Your task to perform on an android device: open app "Pandora - Music & Podcasts" Image 0: 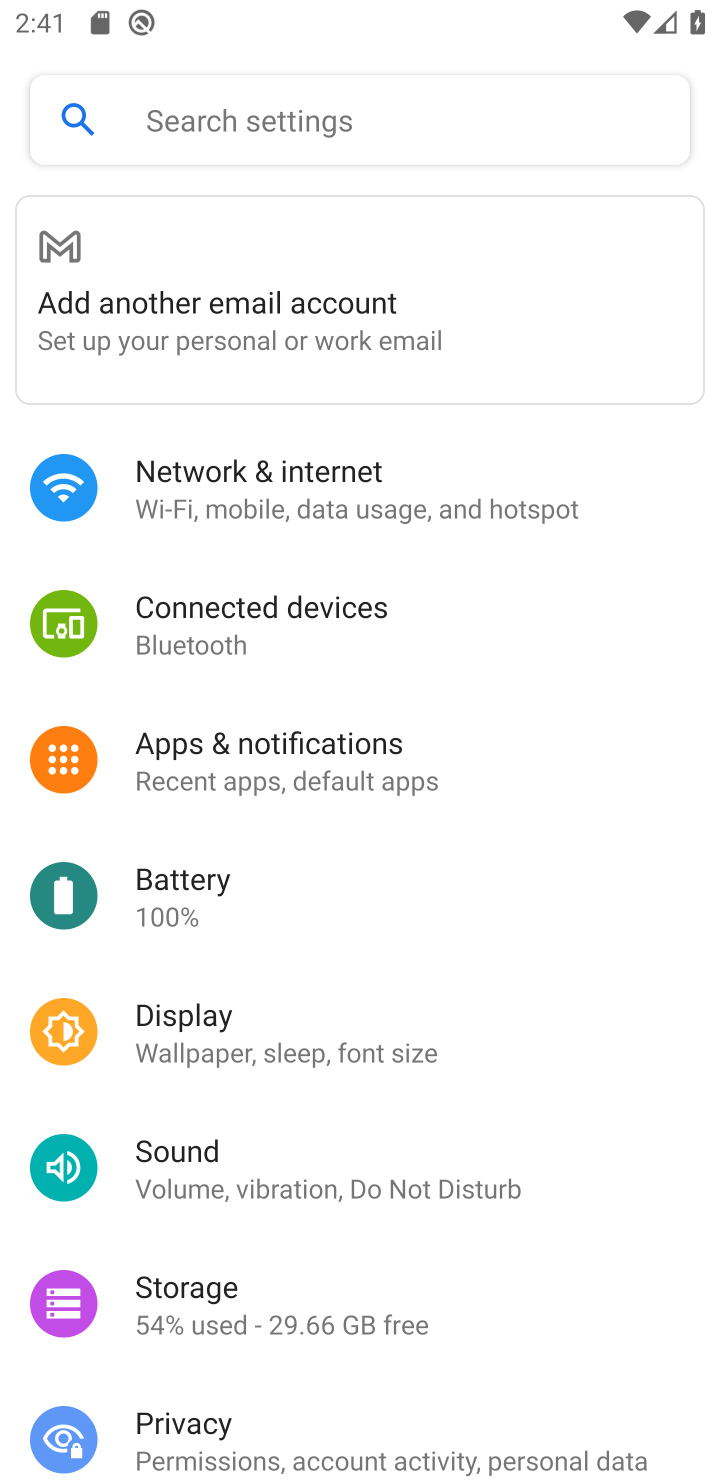
Step 0: press home button
Your task to perform on an android device: open app "Pandora - Music & Podcasts" Image 1: 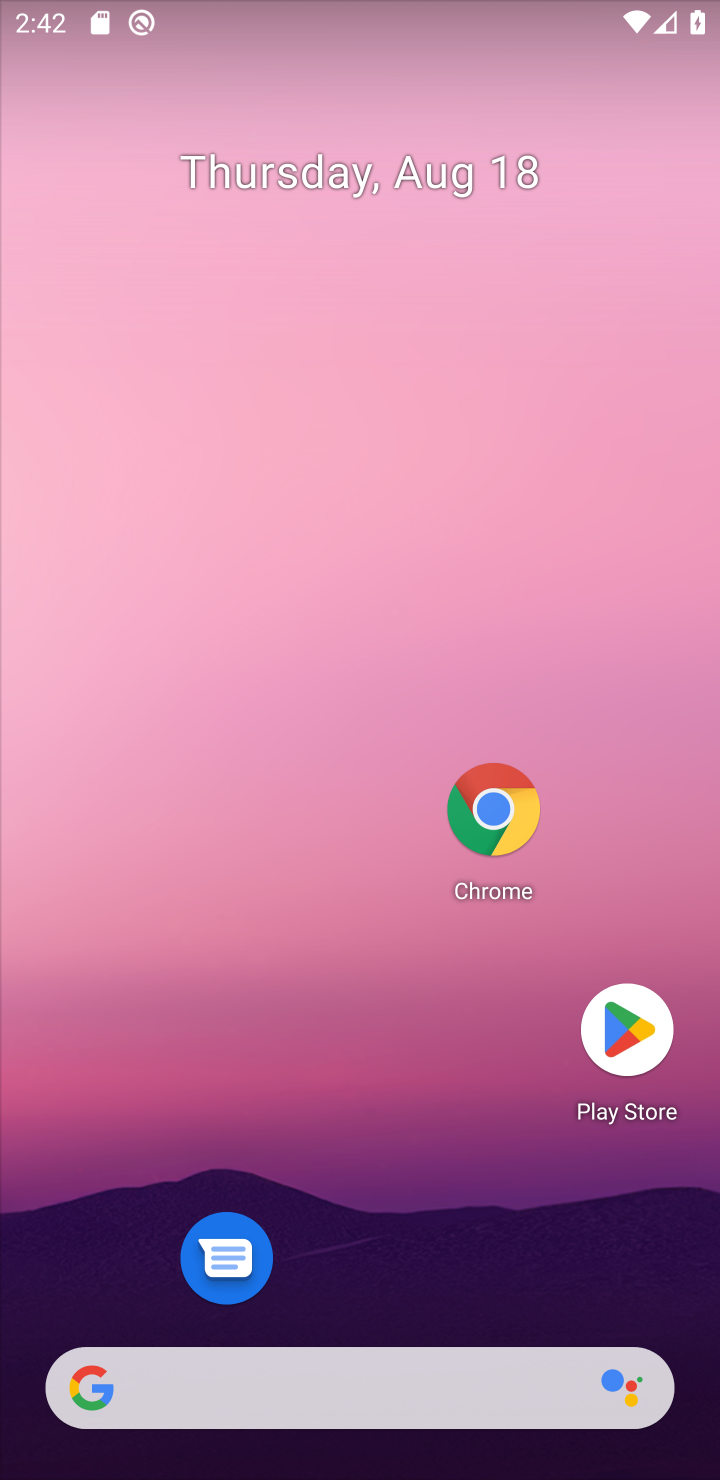
Step 1: click (634, 1048)
Your task to perform on an android device: open app "Pandora - Music & Podcasts" Image 2: 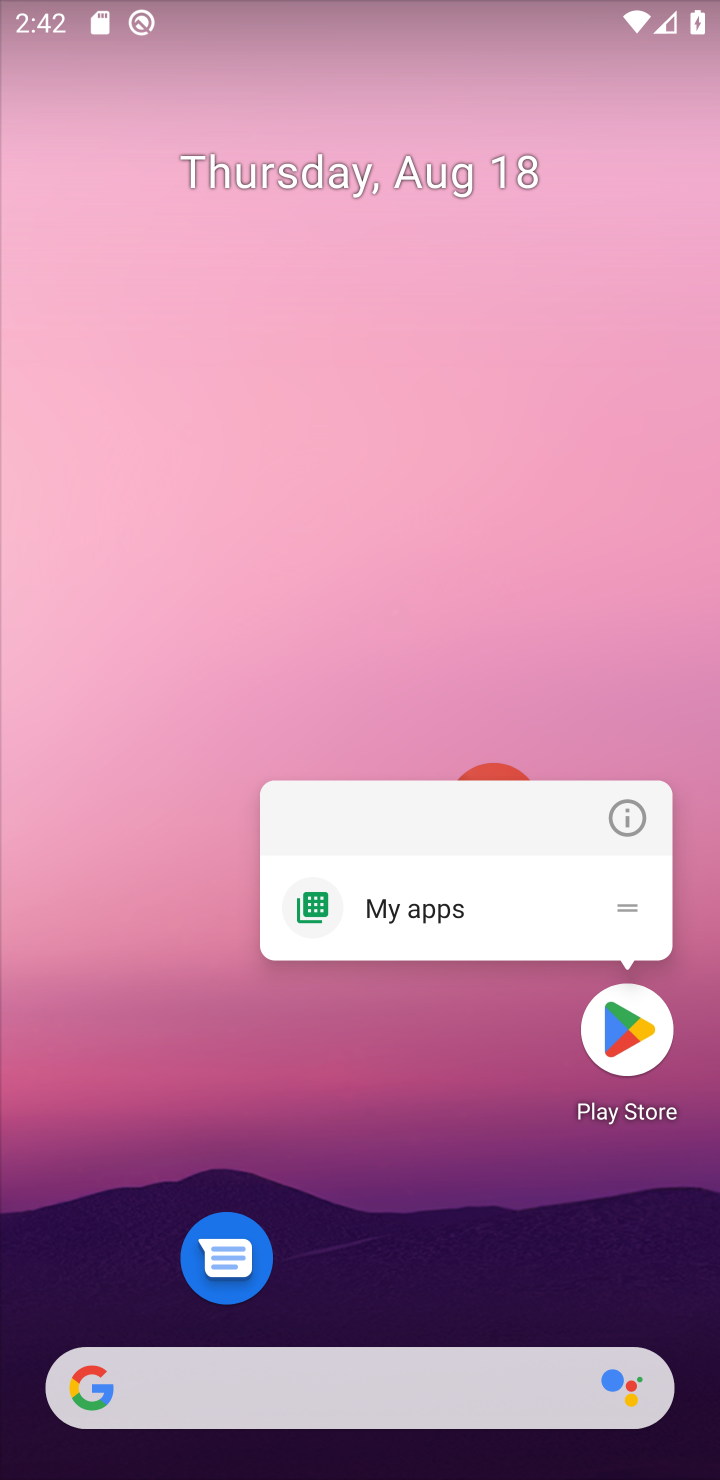
Step 2: click (77, 920)
Your task to perform on an android device: open app "Pandora - Music & Podcasts" Image 3: 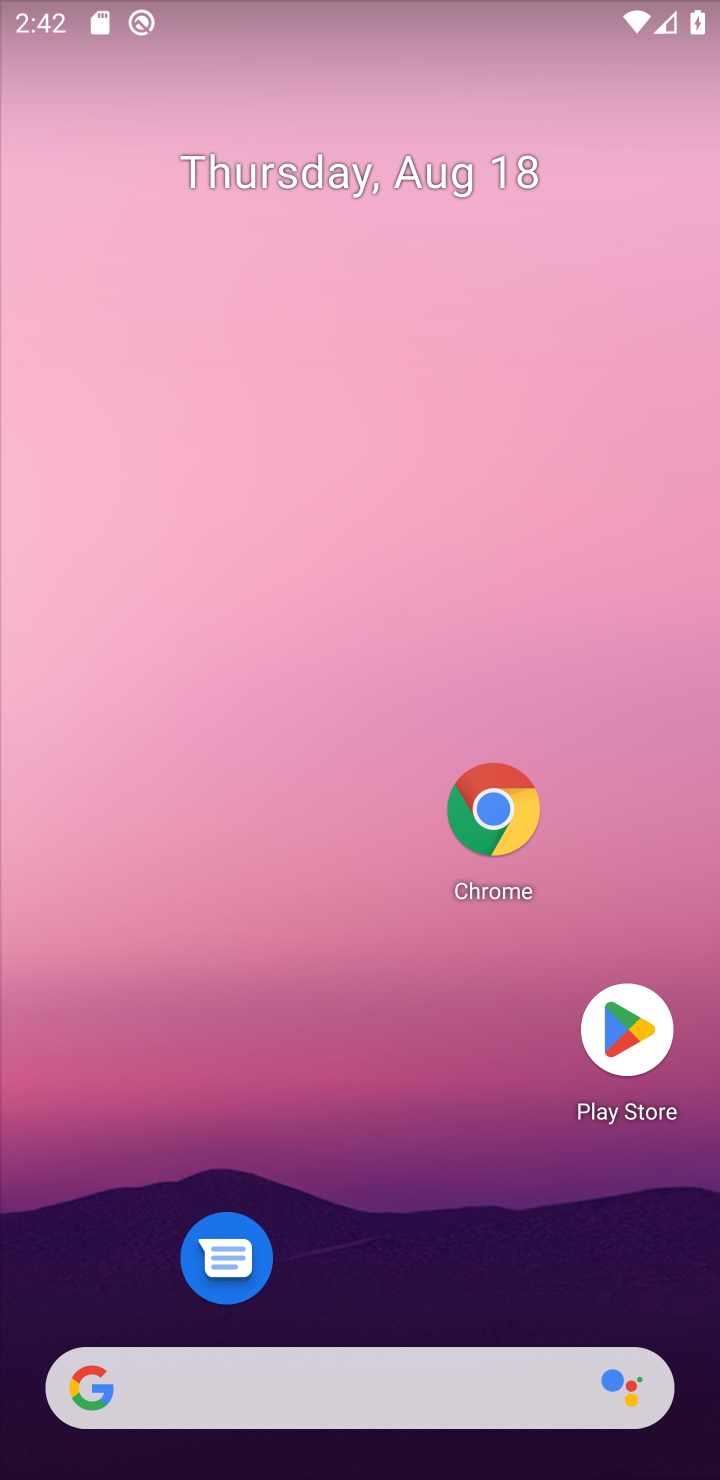
Step 3: click (596, 1016)
Your task to perform on an android device: open app "Pandora - Music & Podcasts" Image 4: 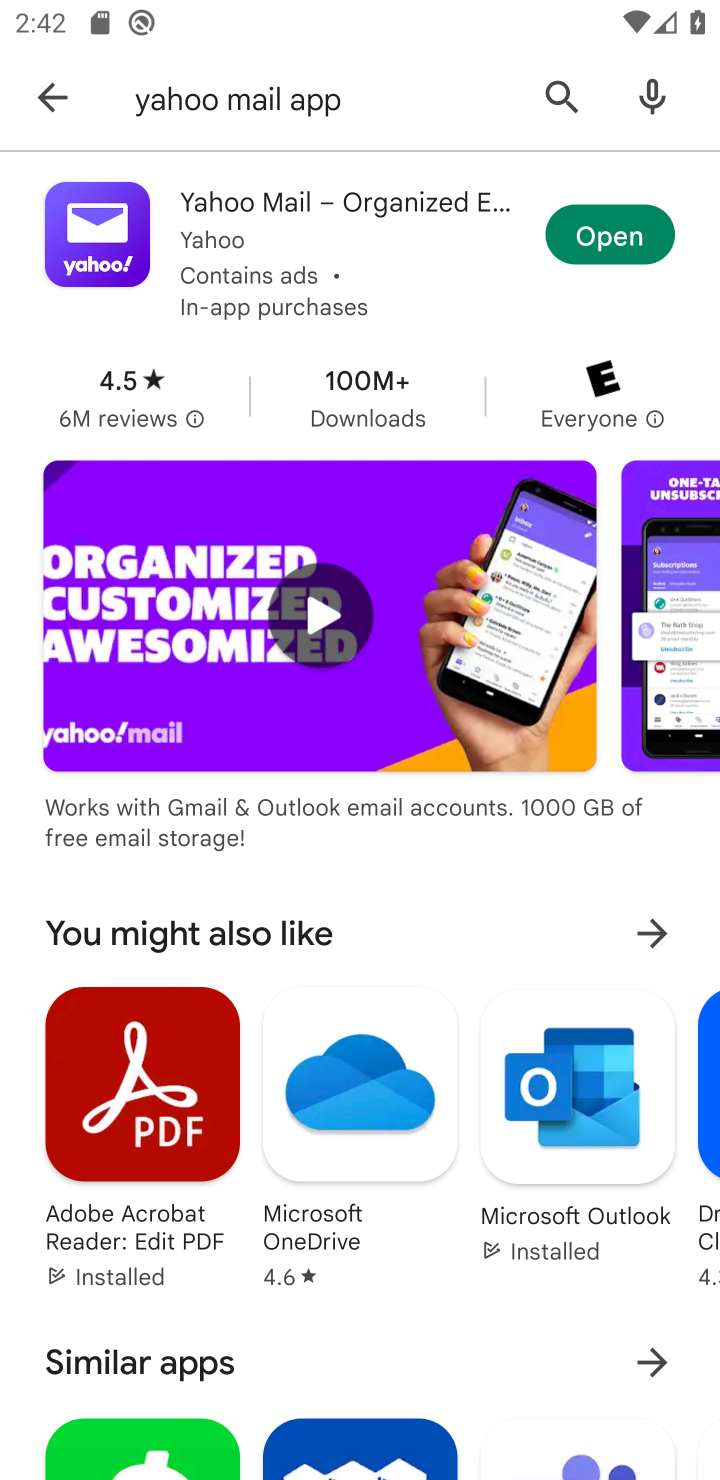
Step 4: click (565, 94)
Your task to perform on an android device: open app "Pandora - Music & Podcasts" Image 5: 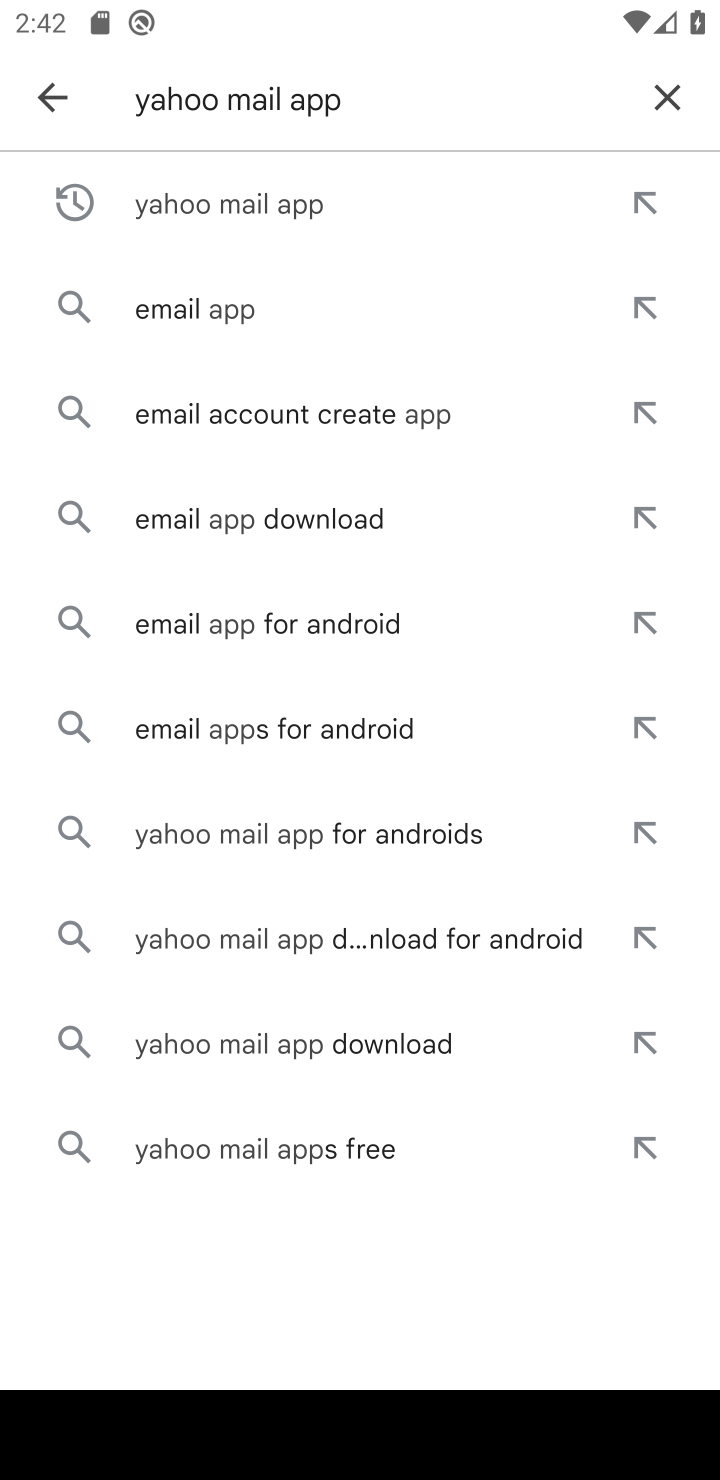
Step 5: click (667, 93)
Your task to perform on an android device: open app "Pandora - Music & Podcasts" Image 6: 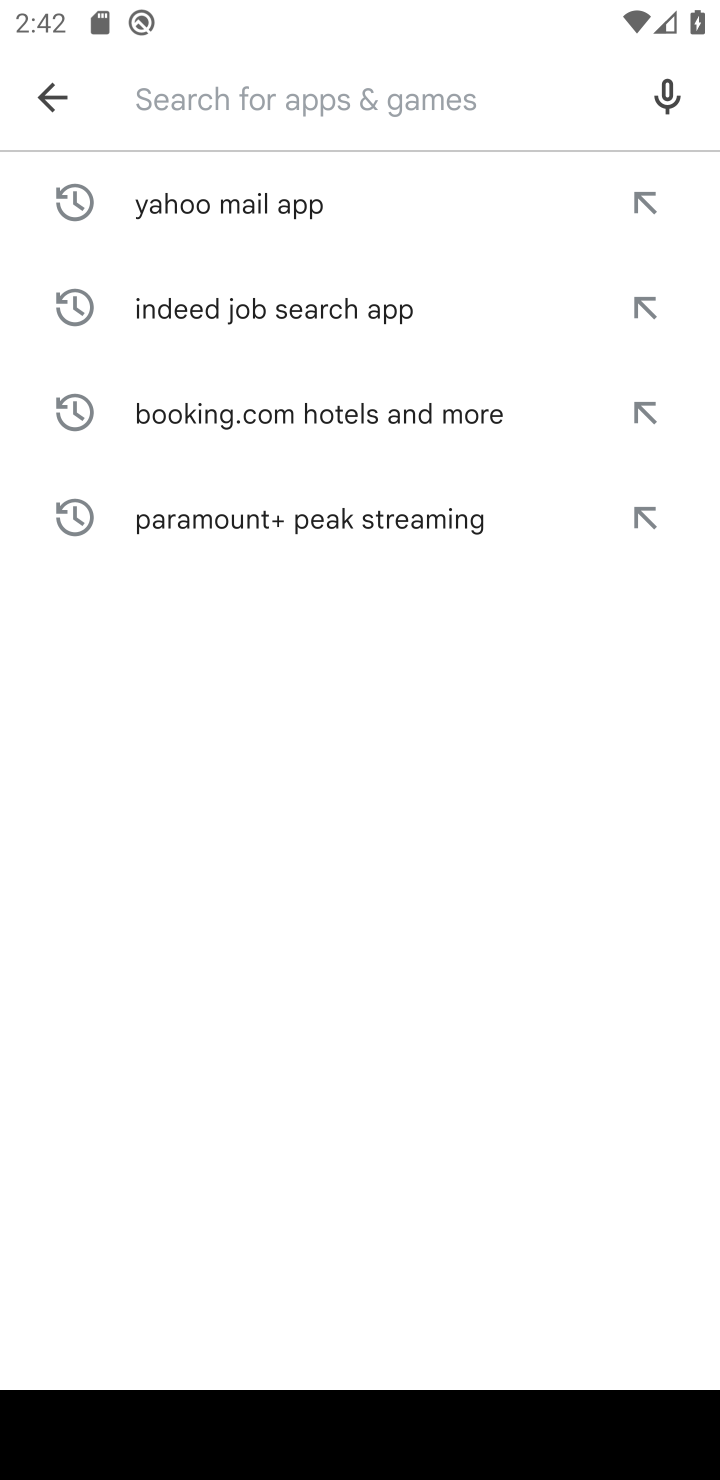
Step 6: click (329, 81)
Your task to perform on an android device: open app "Pandora - Music & Podcasts" Image 7: 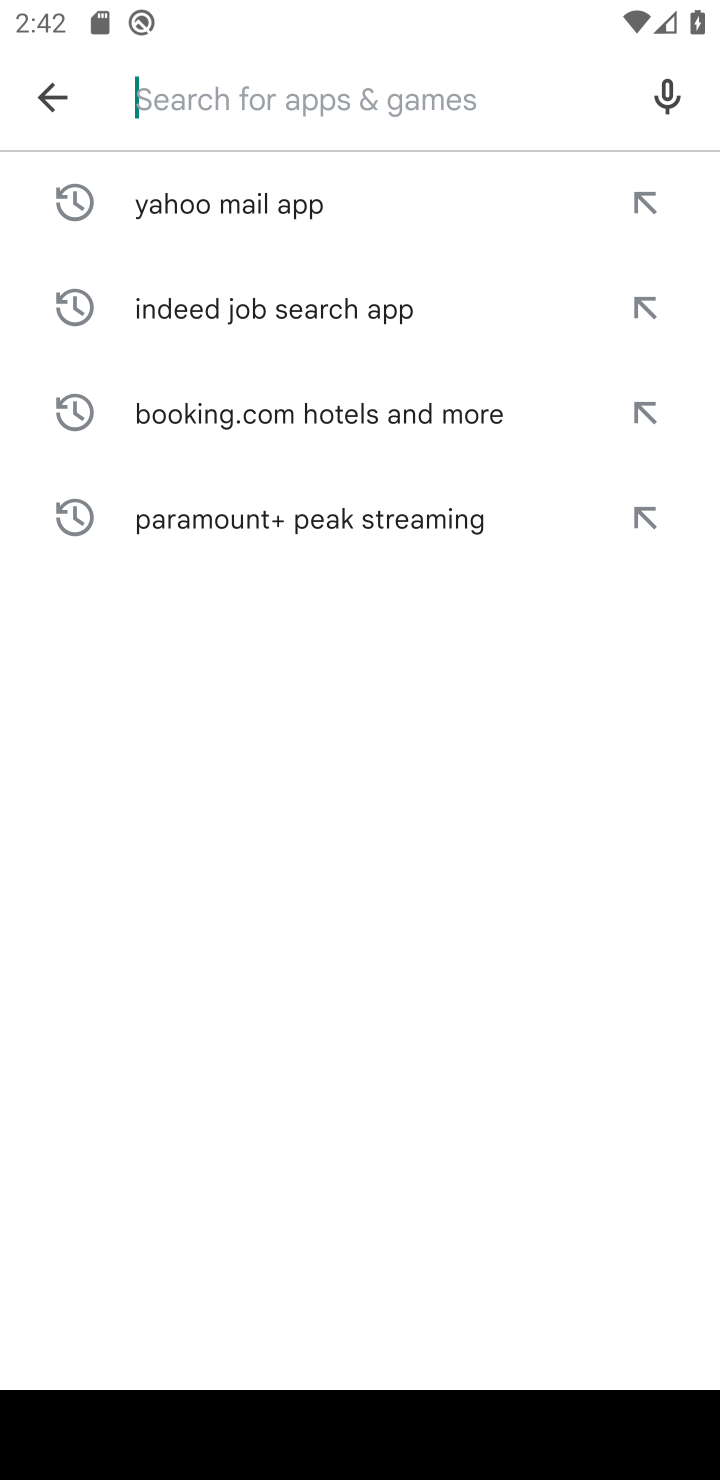
Step 7: type "Pandora "
Your task to perform on an android device: open app "Pandora - Music & Podcasts" Image 8: 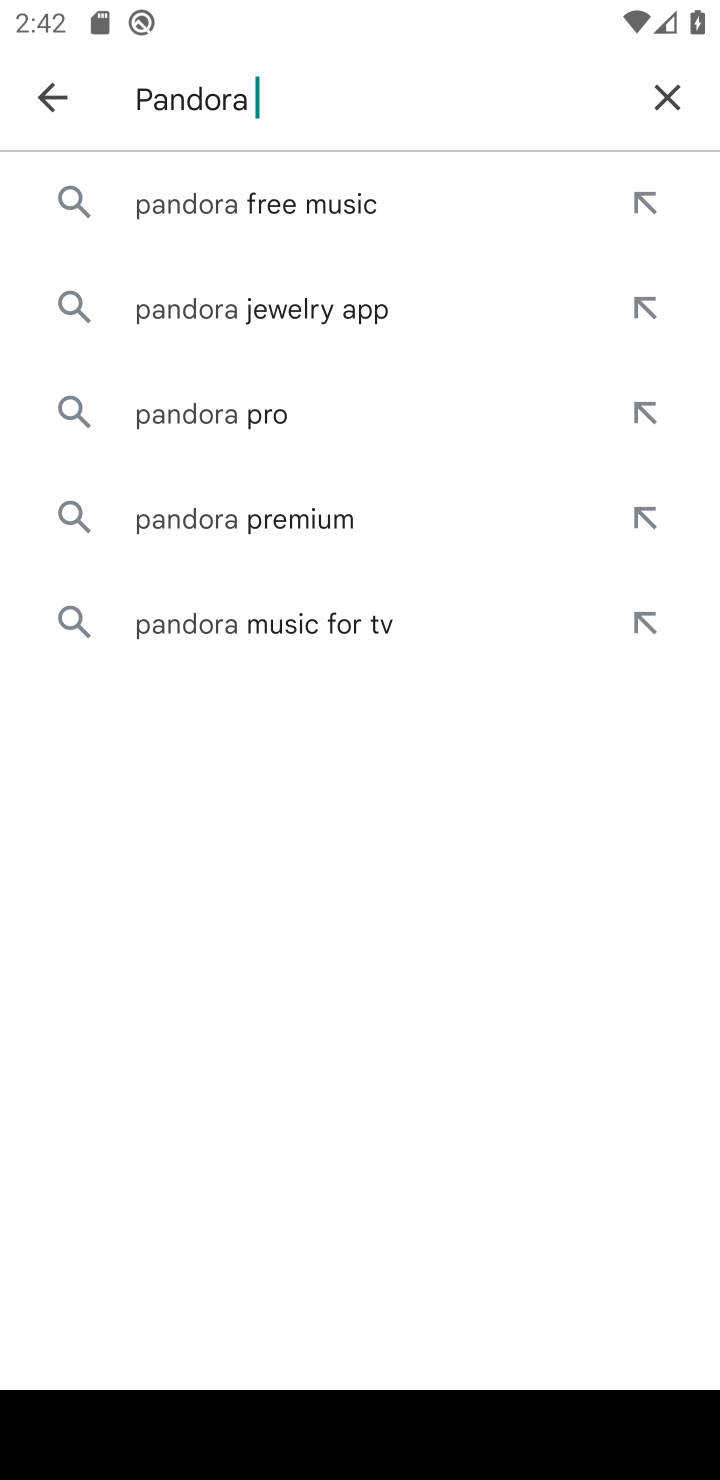
Step 8: click (255, 220)
Your task to perform on an android device: open app "Pandora - Music & Podcasts" Image 9: 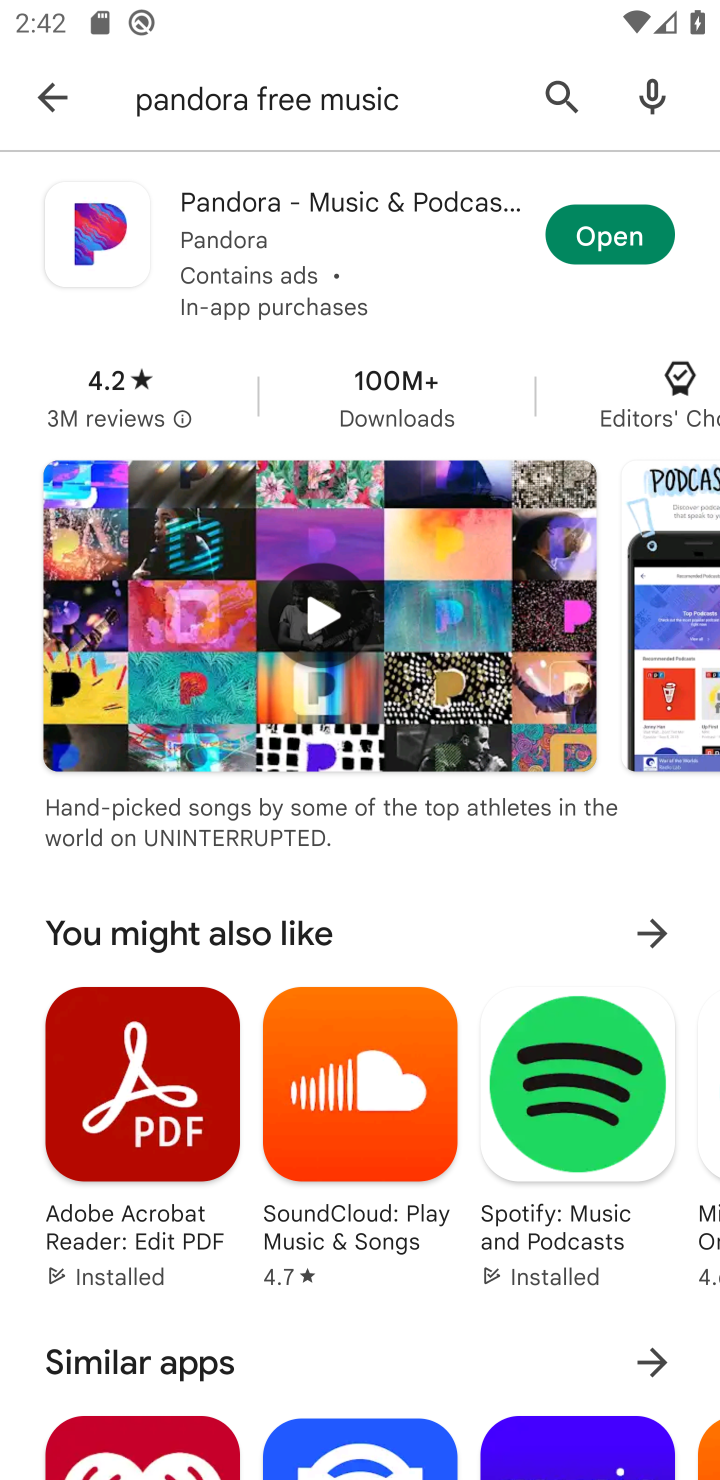
Step 9: click (584, 228)
Your task to perform on an android device: open app "Pandora - Music & Podcasts" Image 10: 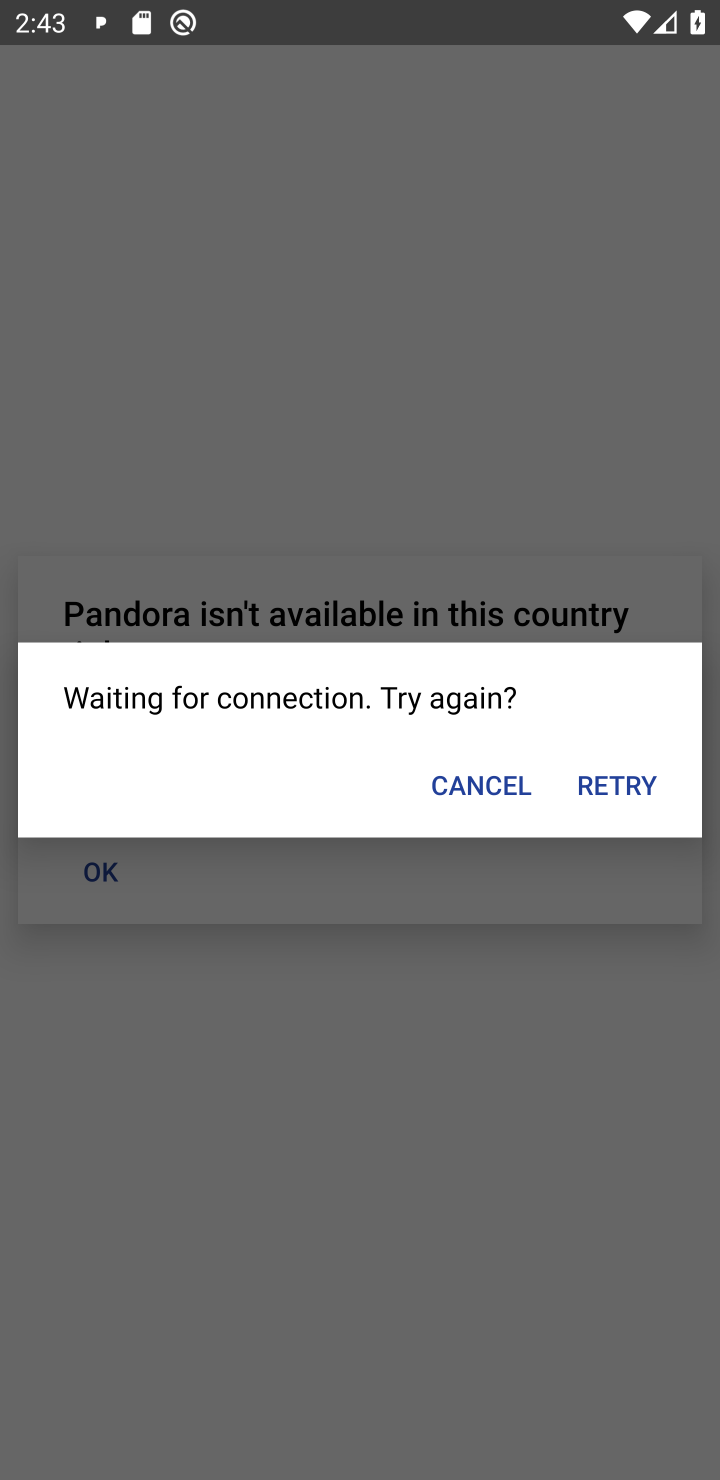
Step 10: task complete